Your task to perform on an android device: Open CNN.com Image 0: 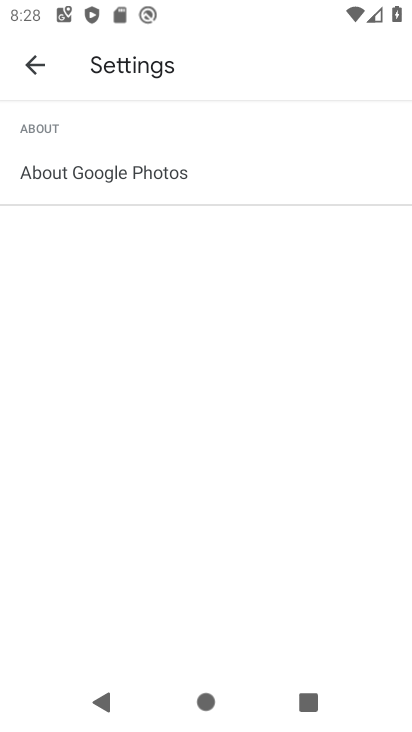
Step 0: press home button
Your task to perform on an android device: Open CNN.com Image 1: 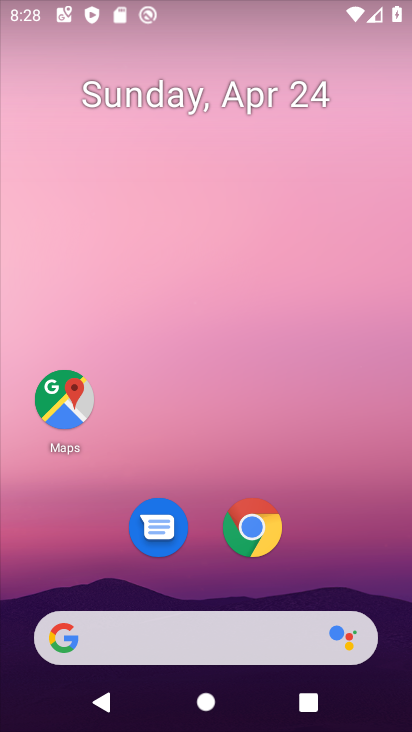
Step 1: drag from (341, 493) to (256, 40)
Your task to perform on an android device: Open CNN.com Image 2: 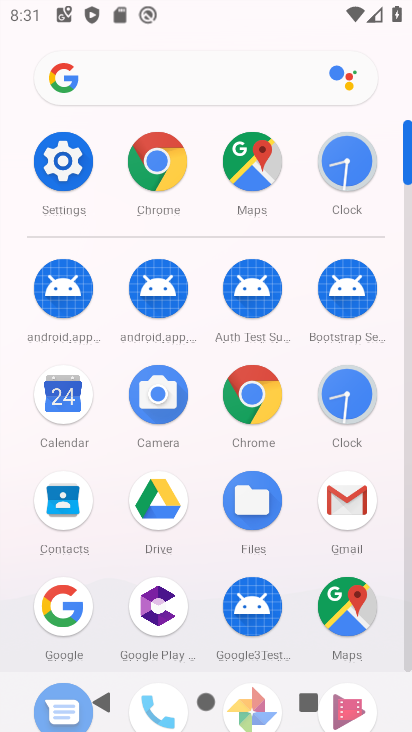
Step 2: click (256, 379)
Your task to perform on an android device: Open CNN.com Image 3: 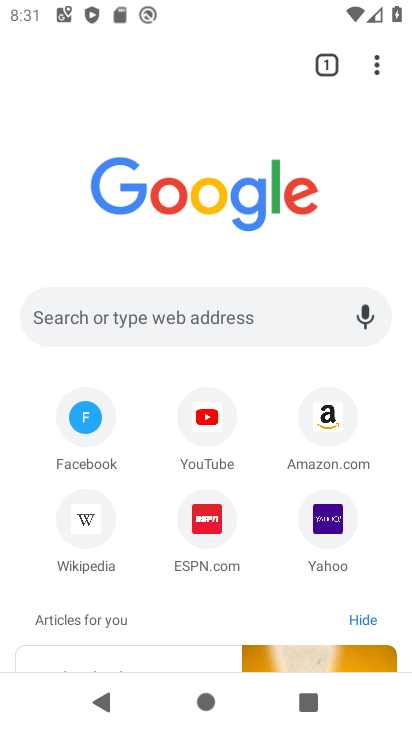
Step 3: click (130, 321)
Your task to perform on an android device: Open CNN.com Image 4: 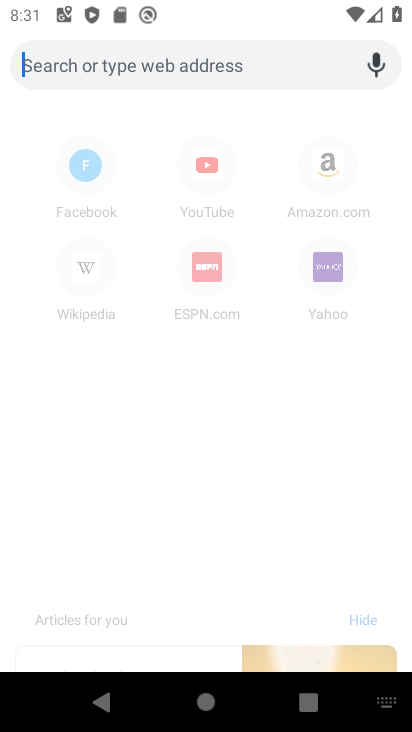
Step 4: type "cnn.com"
Your task to perform on an android device: Open CNN.com Image 5: 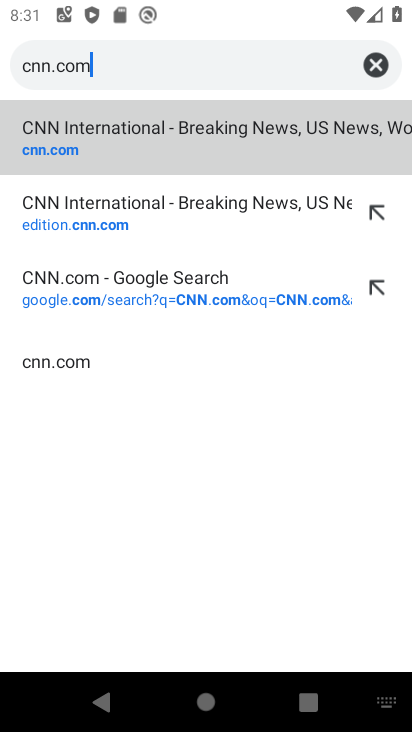
Step 5: click (116, 139)
Your task to perform on an android device: Open CNN.com Image 6: 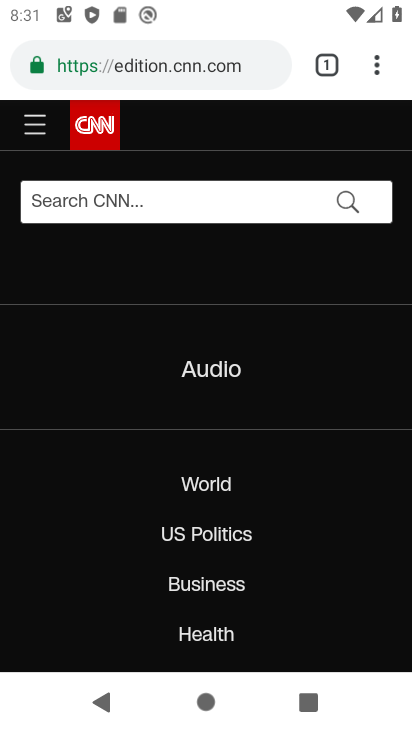
Step 6: task complete